Your task to perform on an android device: Show me recent news Image 0: 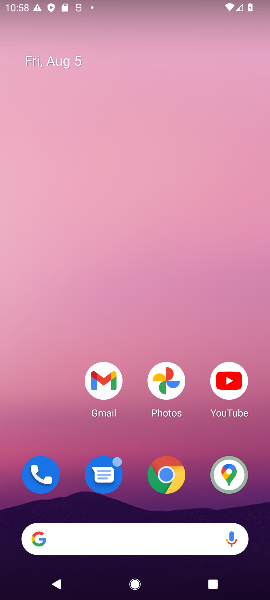
Step 0: drag from (136, 497) to (187, 0)
Your task to perform on an android device: Show me recent news Image 1: 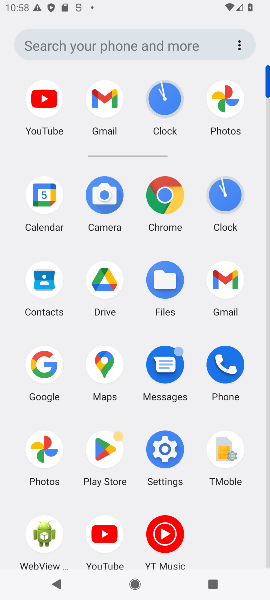
Step 1: click (146, 49)
Your task to perform on an android device: Show me recent news Image 2: 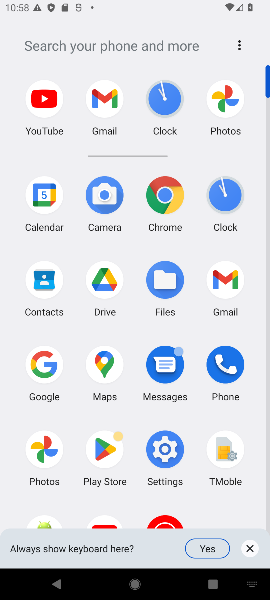
Step 2: type "recent news"
Your task to perform on an android device: Show me recent news Image 3: 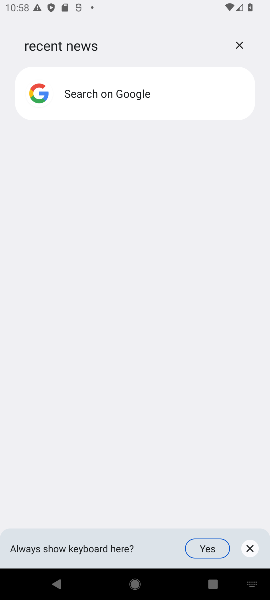
Step 3: click (107, 95)
Your task to perform on an android device: Show me recent news Image 4: 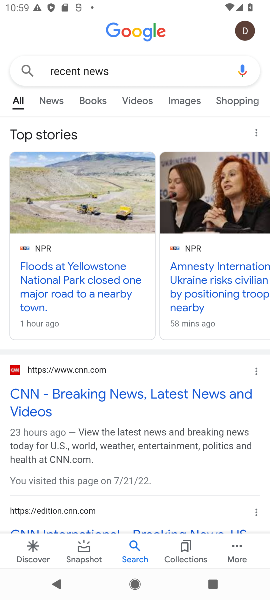
Step 4: task complete